Your task to perform on an android device: When is my next appointment? Image 0: 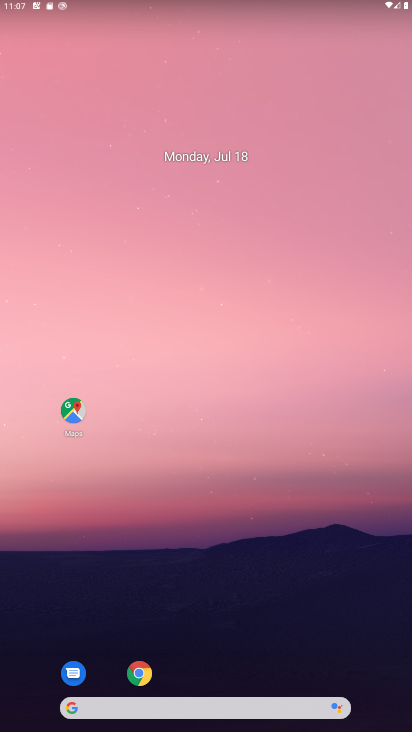
Step 0: drag from (236, 649) to (254, 90)
Your task to perform on an android device: When is my next appointment? Image 1: 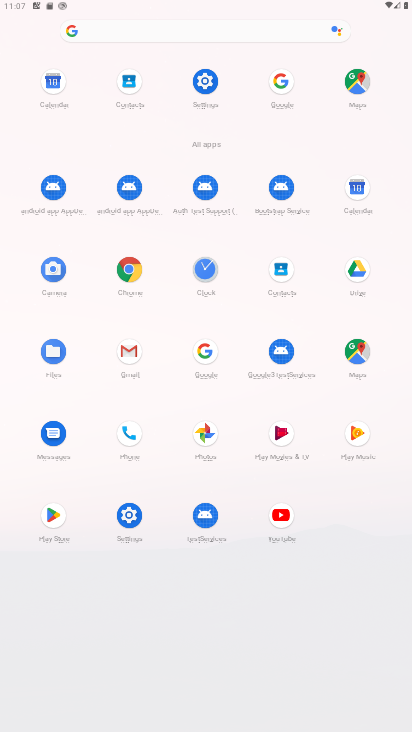
Step 1: click (363, 179)
Your task to perform on an android device: When is my next appointment? Image 2: 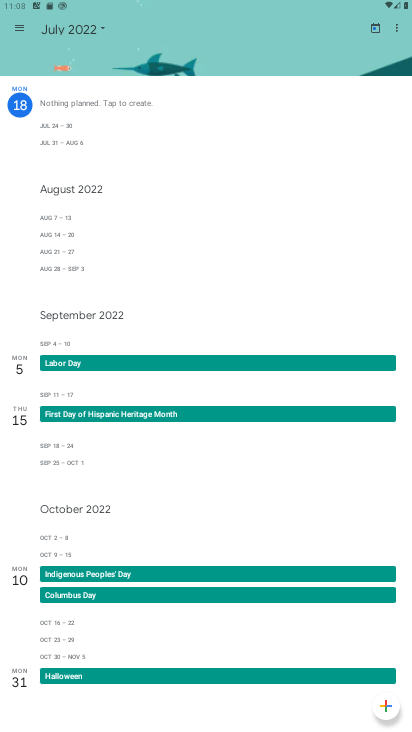
Step 2: task complete